Your task to perform on an android device: Go to ESPN.com Image 0: 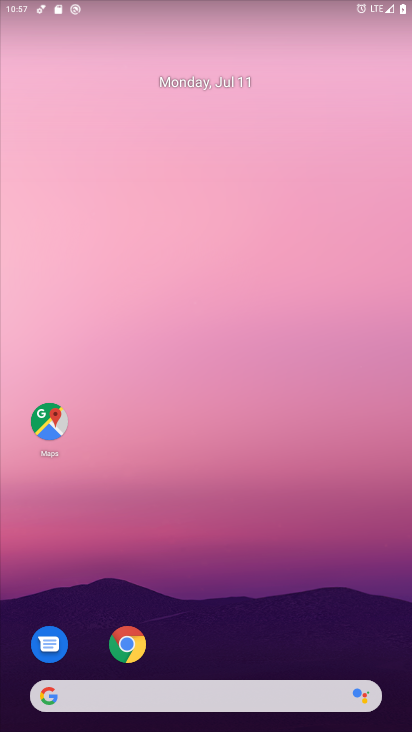
Step 0: drag from (189, 644) to (226, 236)
Your task to perform on an android device: Go to ESPN.com Image 1: 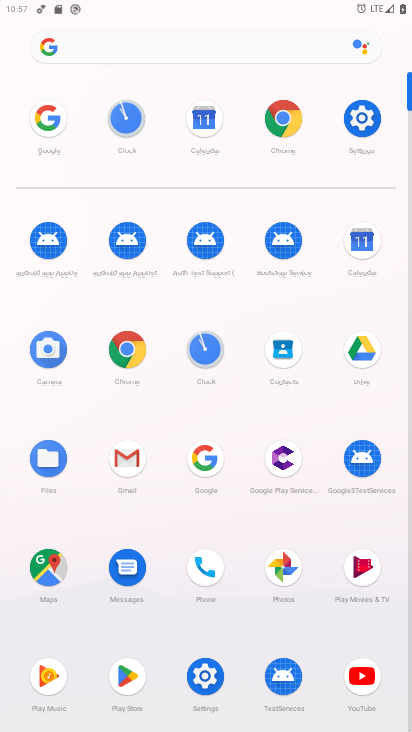
Step 1: click (281, 106)
Your task to perform on an android device: Go to ESPN.com Image 2: 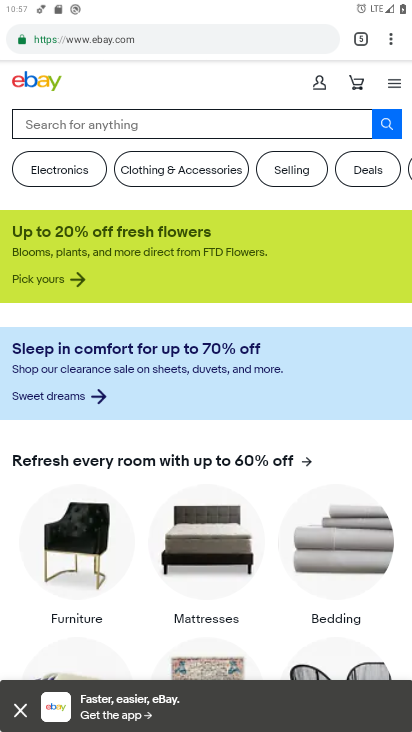
Step 2: click (396, 34)
Your task to perform on an android device: Go to ESPN.com Image 3: 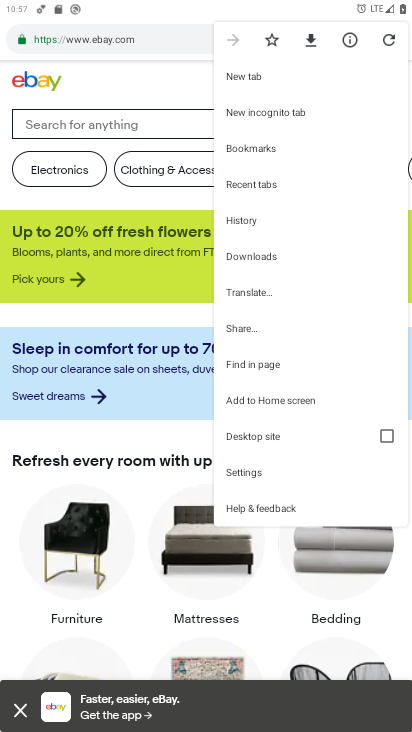
Step 3: click (250, 69)
Your task to perform on an android device: Go to ESPN.com Image 4: 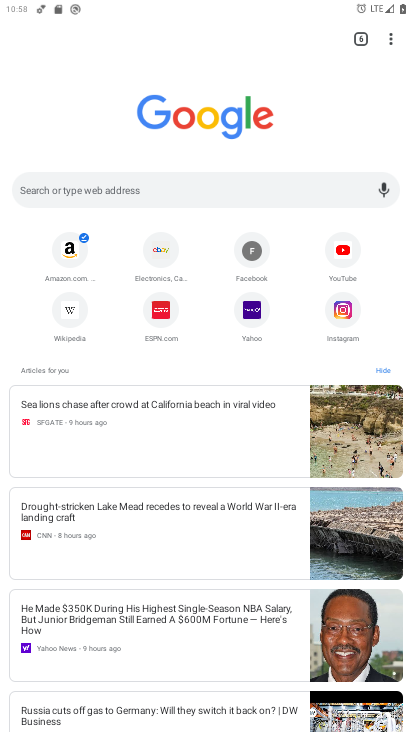
Step 4: click (152, 315)
Your task to perform on an android device: Go to ESPN.com Image 5: 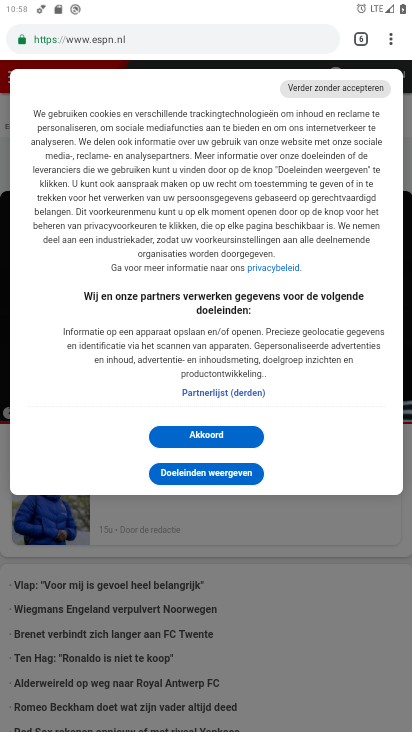
Step 5: task complete